Your task to perform on an android device: add a contact Image 0: 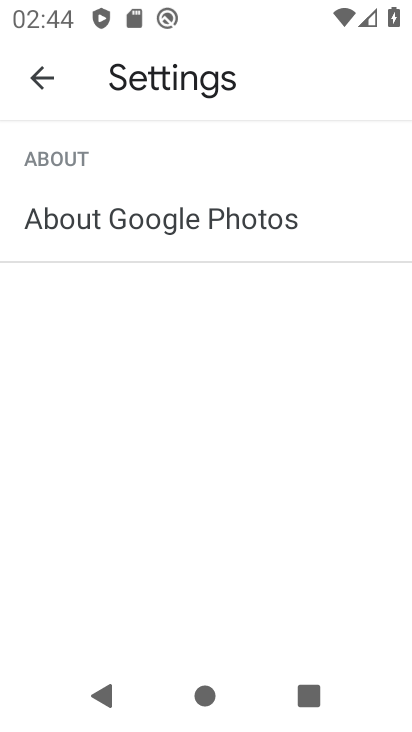
Step 0: press home button
Your task to perform on an android device: add a contact Image 1: 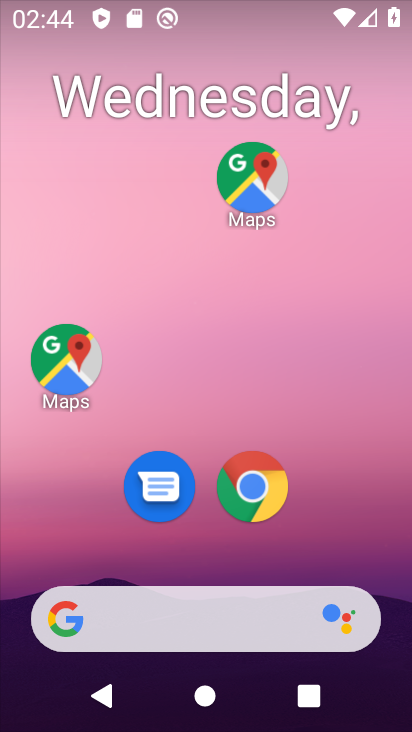
Step 1: drag from (239, 577) to (155, 15)
Your task to perform on an android device: add a contact Image 2: 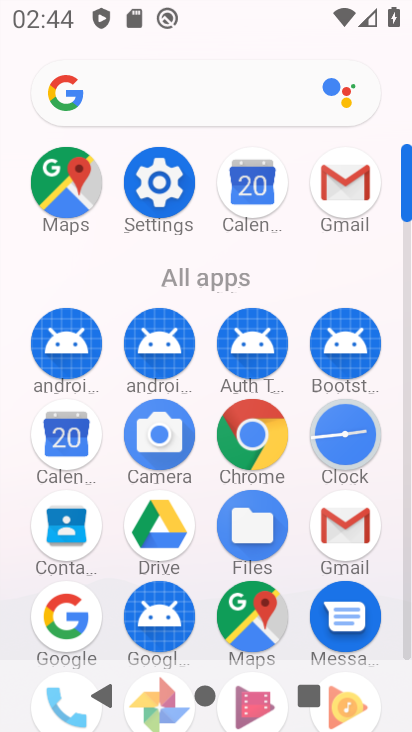
Step 2: drag from (115, 566) to (114, 145)
Your task to perform on an android device: add a contact Image 3: 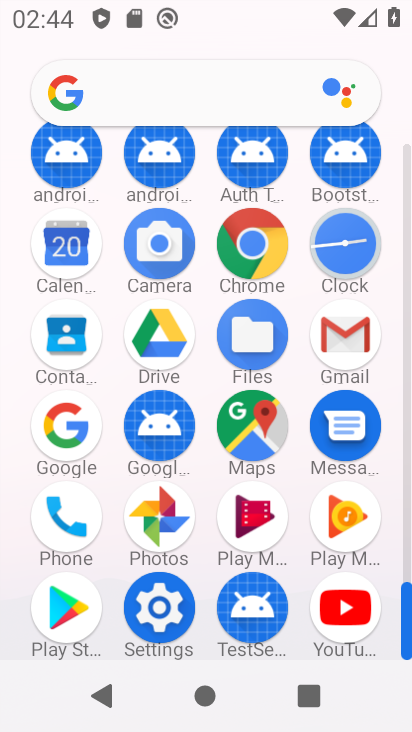
Step 3: click (72, 541)
Your task to perform on an android device: add a contact Image 4: 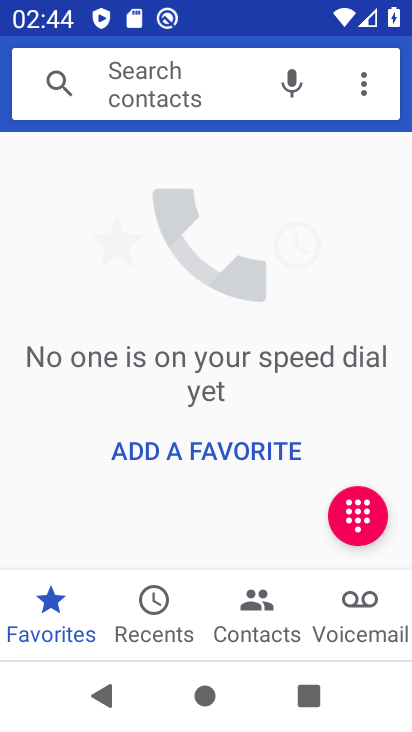
Step 4: click (257, 613)
Your task to perform on an android device: add a contact Image 5: 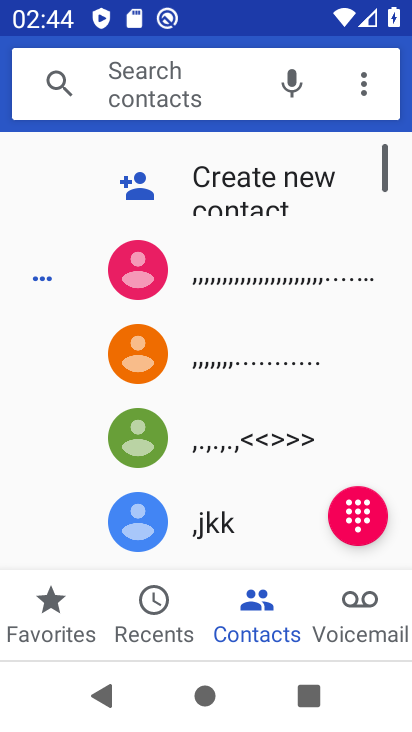
Step 5: click (209, 199)
Your task to perform on an android device: add a contact Image 6: 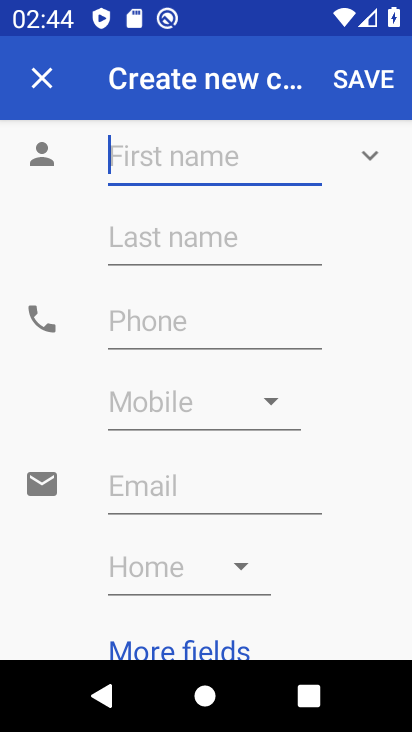
Step 6: type "kl"
Your task to perform on an android device: add a contact Image 7: 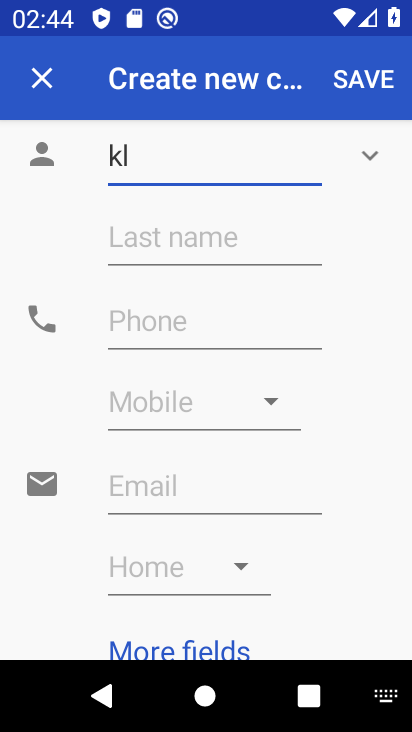
Step 7: click (248, 334)
Your task to perform on an android device: add a contact Image 8: 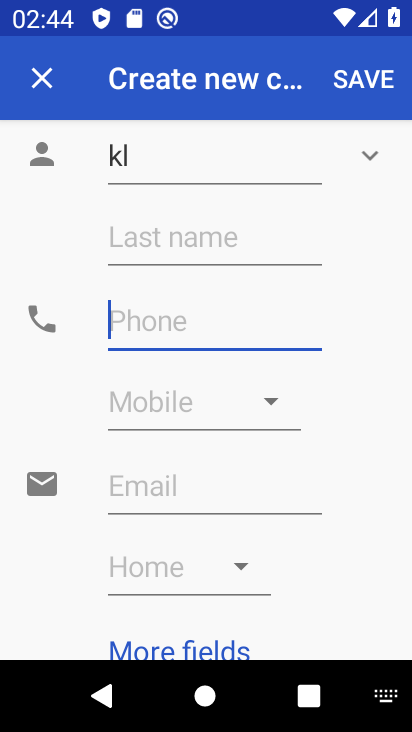
Step 8: type "89989"
Your task to perform on an android device: add a contact Image 9: 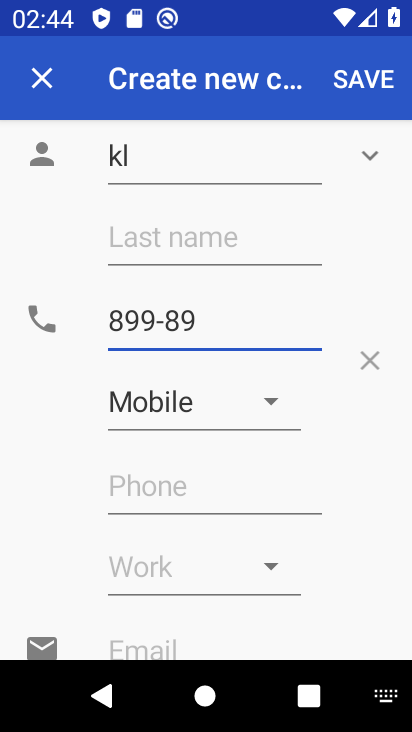
Step 9: click (362, 89)
Your task to perform on an android device: add a contact Image 10: 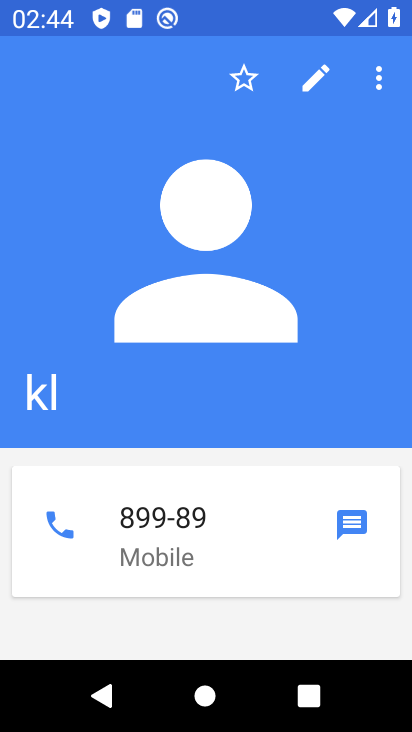
Step 10: task complete